Your task to perform on an android device: Open wifi settings Image 0: 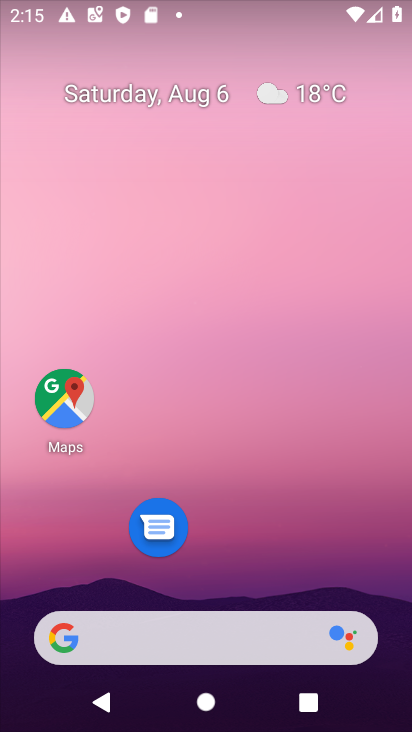
Step 0: drag from (237, 565) to (198, 0)
Your task to perform on an android device: Open wifi settings Image 1: 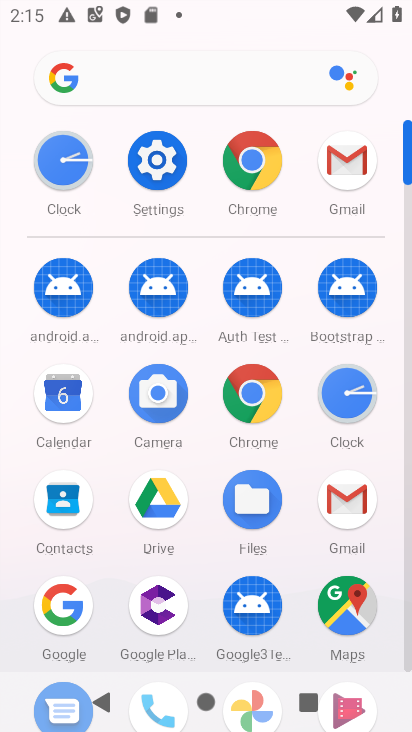
Step 1: click (160, 177)
Your task to perform on an android device: Open wifi settings Image 2: 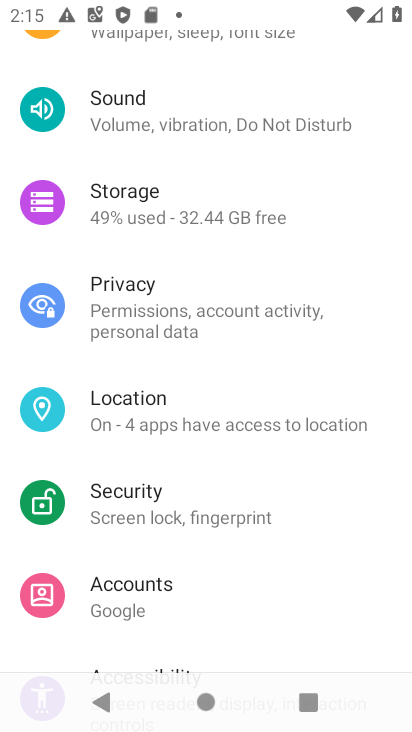
Step 2: drag from (178, 378) to (133, 693)
Your task to perform on an android device: Open wifi settings Image 3: 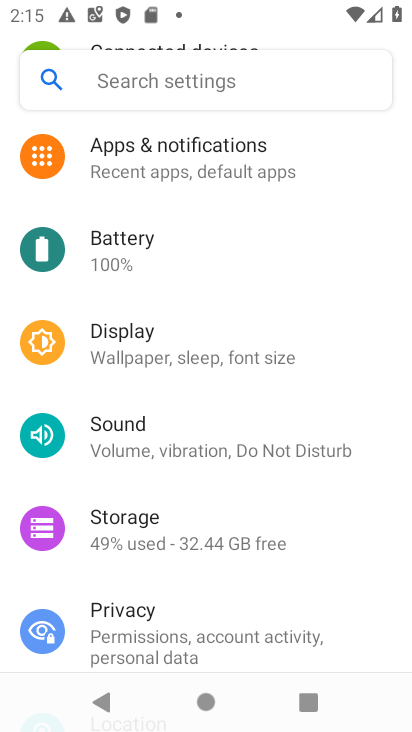
Step 3: drag from (186, 163) to (185, 653)
Your task to perform on an android device: Open wifi settings Image 4: 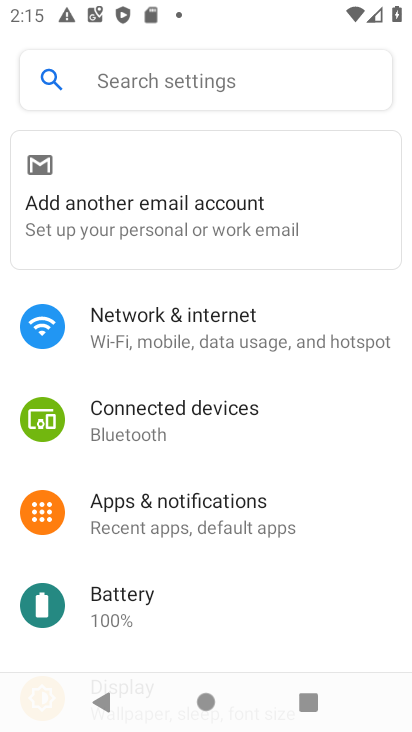
Step 4: click (187, 343)
Your task to perform on an android device: Open wifi settings Image 5: 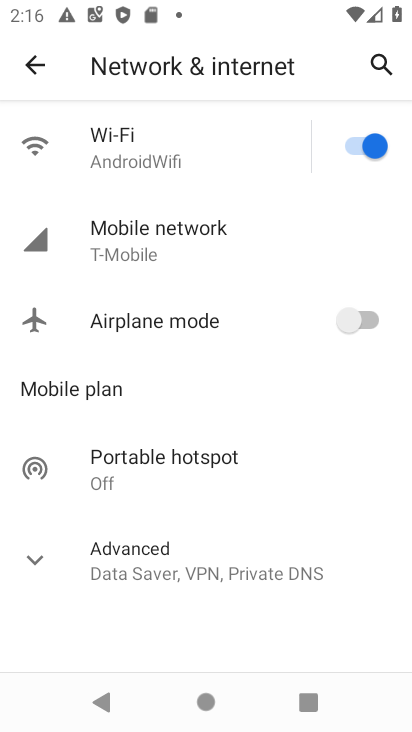
Step 5: click (171, 150)
Your task to perform on an android device: Open wifi settings Image 6: 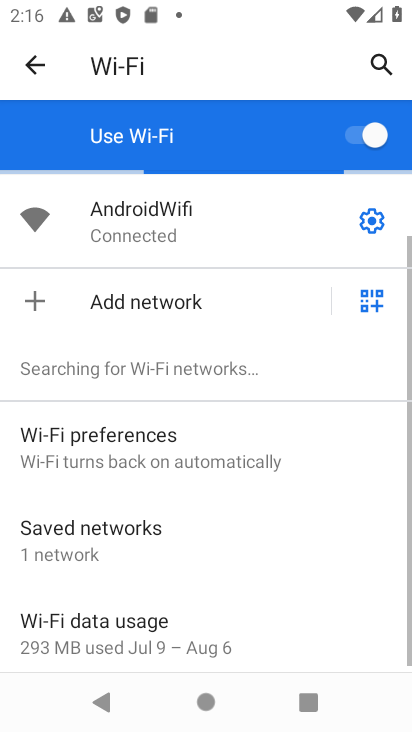
Step 6: task complete